Your task to perform on an android device: Set the phone to "Do not disturb". Image 0: 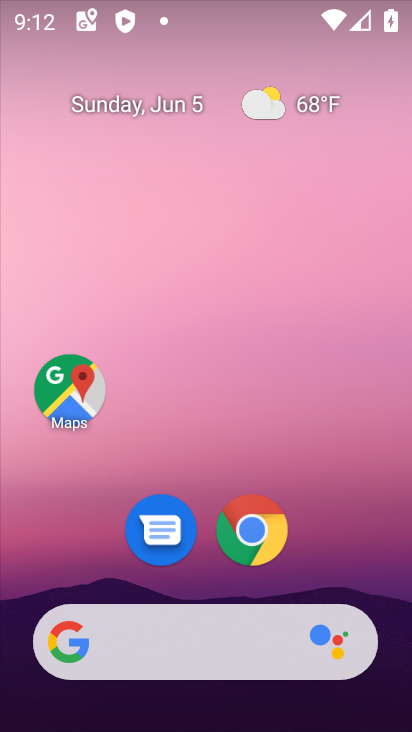
Step 0: drag from (395, 623) to (344, 90)
Your task to perform on an android device: Set the phone to "Do not disturb". Image 1: 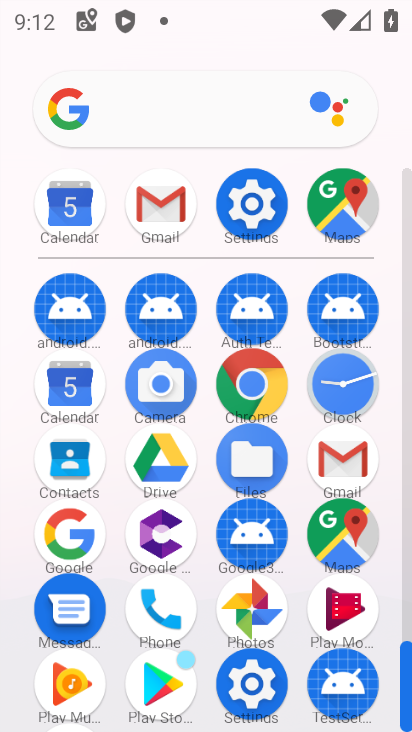
Step 1: click (410, 621)
Your task to perform on an android device: Set the phone to "Do not disturb". Image 2: 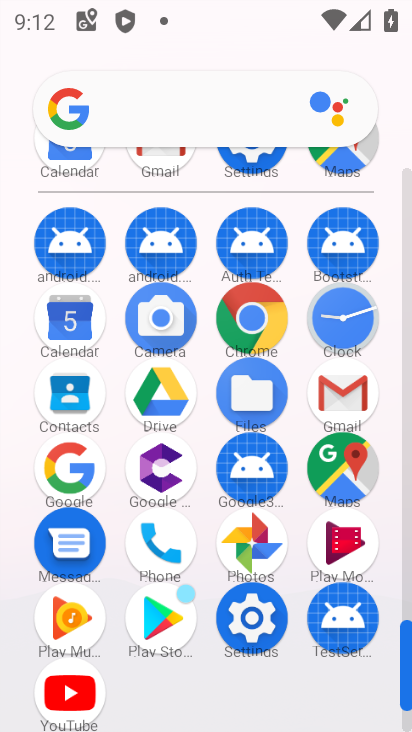
Step 2: click (254, 616)
Your task to perform on an android device: Set the phone to "Do not disturb". Image 3: 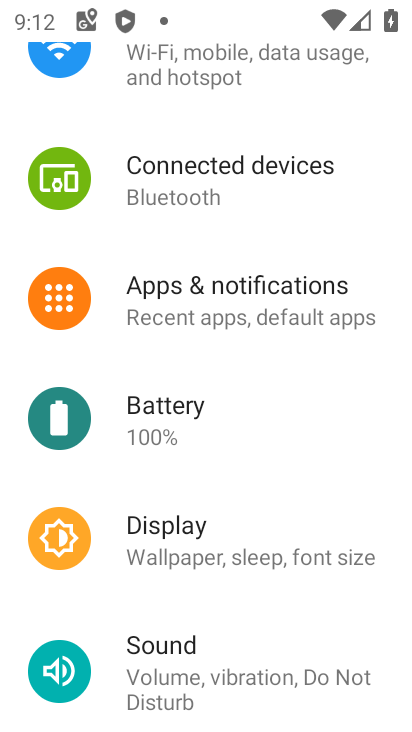
Step 3: drag from (381, 616) to (360, 295)
Your task to perform on an android device: Set the phone to "Do not disturb". Image 4: 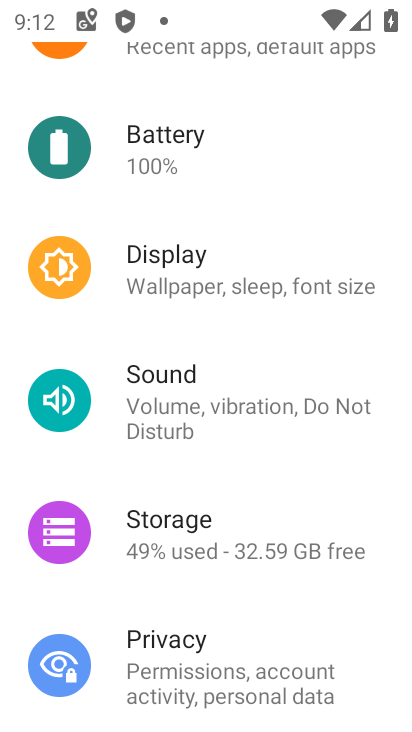
Step 4: click (166, 425)
Your task to perform on an android device: Set the phone to "Do not disturb". Image 5: 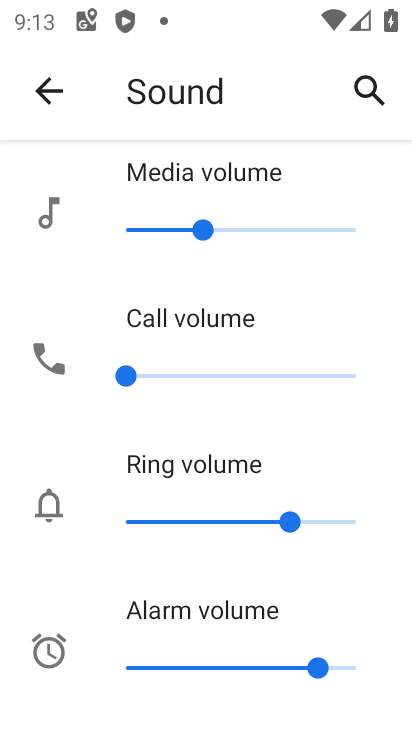
Step 5: drag from (350, 665) to (342, 128)
Your task to perform on an android device: Set the phone to "Do not disturb". Image 6: 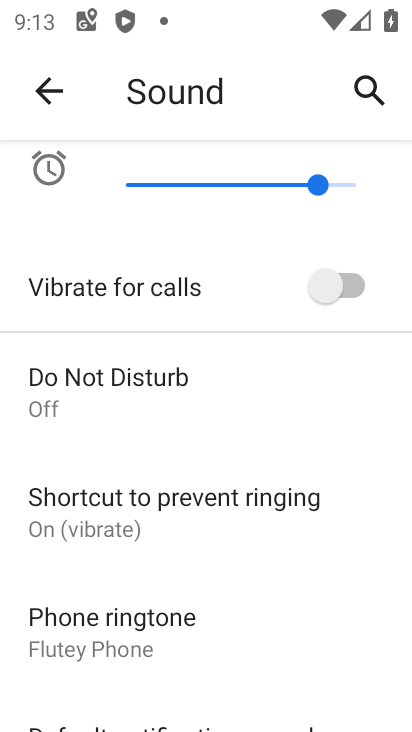
Step 6: click (95, 375)
Your task to perform on an android device: Set the phone to "Do not disturb". Image 7: 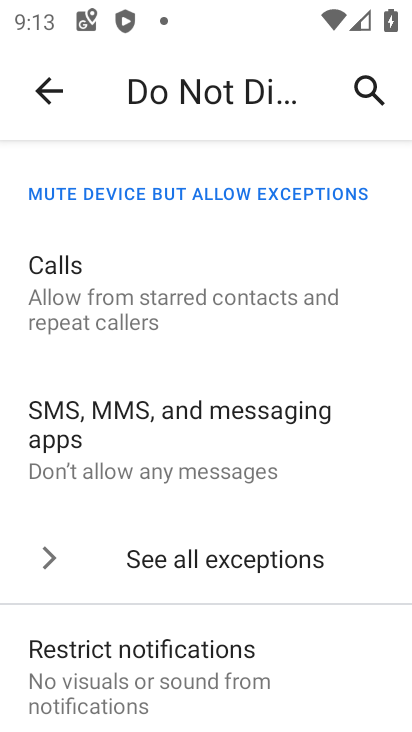
Step 7: drag from (277, 638) to (262, 240)
Your task to perform on an android device: Set the phone to "Do not disturb". Image 8: 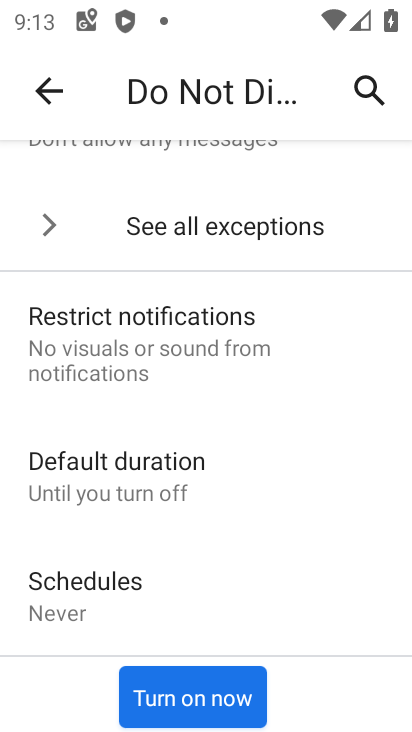
Step 8: click (178, 695)
Your task to perform on an android device: Set the phone to "Do not disturb". Image 9: 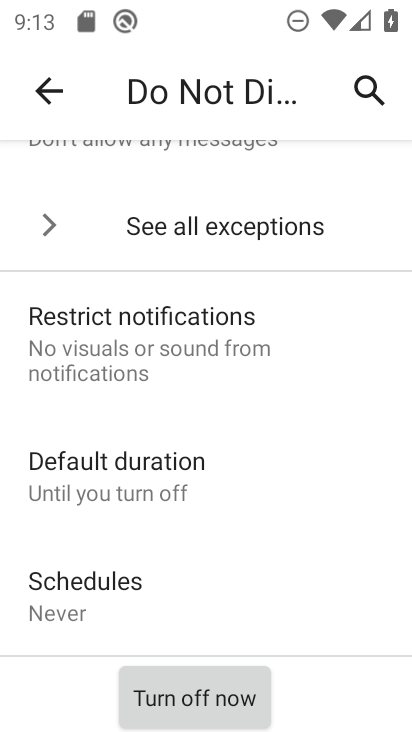
Step 9: task complete